Your task to perform on an android device: What's on my calendar today? Image 0: 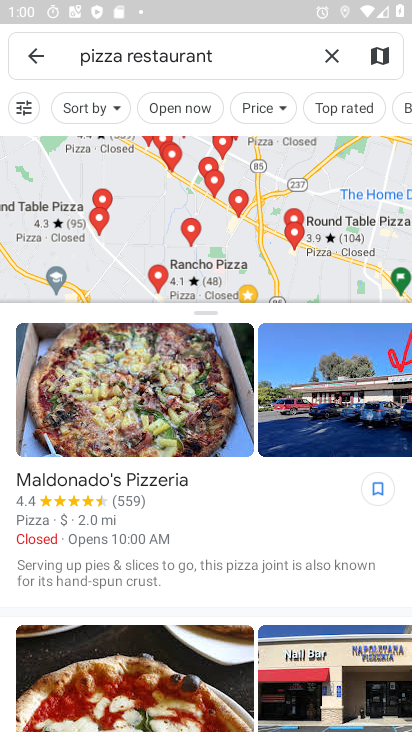
Step 0: press home button
Your task to perform on an android device: What's on my calendar today? Image 1: 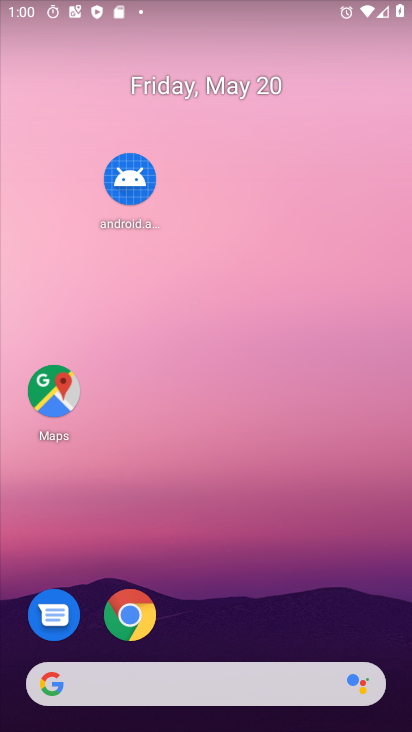
Step 1: drag from (219, 556) to (236, 28)
Your task to perform on an android device: What's on my calendar today? Image 2: 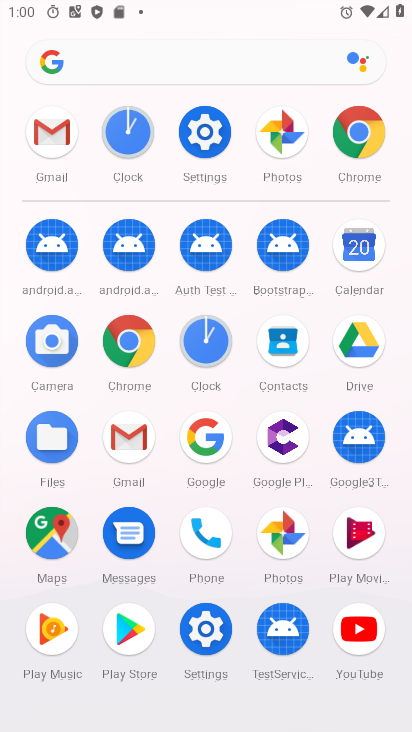
Step 2: click (356, 245)
Your task to perform on an android device: What's on my calendar today? Image 3: 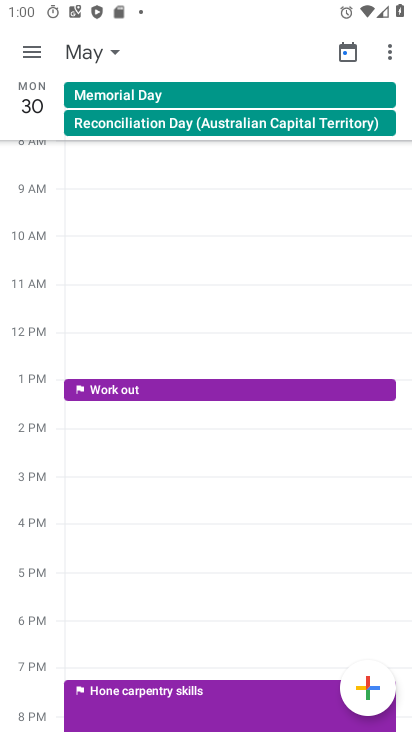
Step 3: click (32, 56)
Your task to perform on an android device: What's on my calendar today? Image 4: 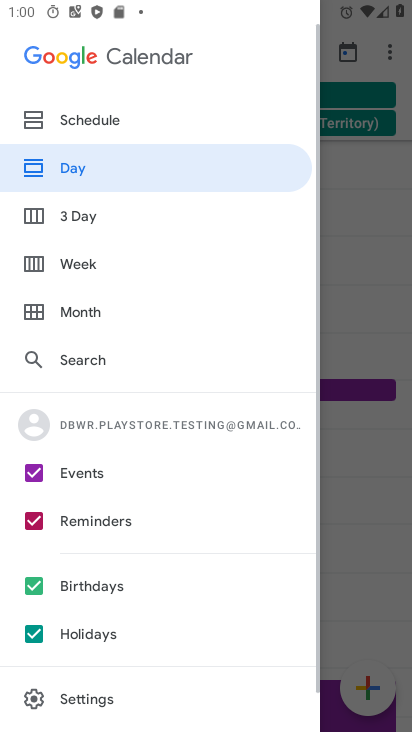
Step 4: click (149, 165)
Your task to perform on an android device: What's on my calendar today? Image 5: 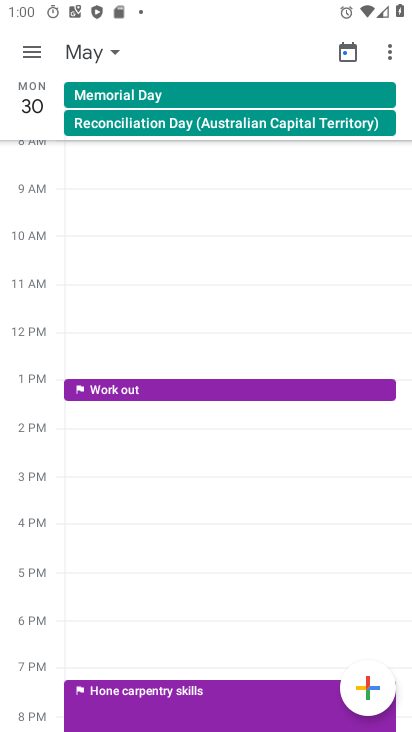
Step 5: click (106, 58)
Your task to perform on an android device: What's on my calendar today? Image 6: 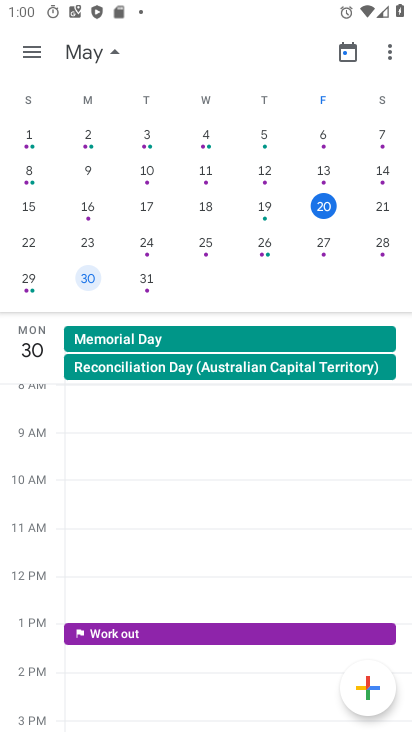
Step 6: click (322, 208)
Your task to perform on an android device: What's on my calendar today? Image 7: 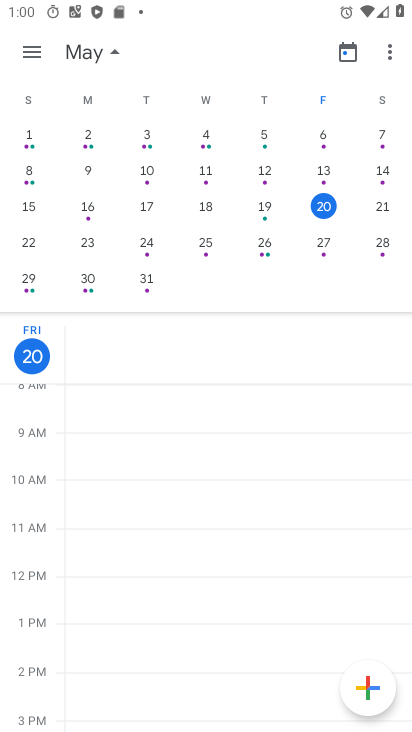
Step 7: task complete